Your task to perform on an android device: search for starred emails in the gmail app Image 0: 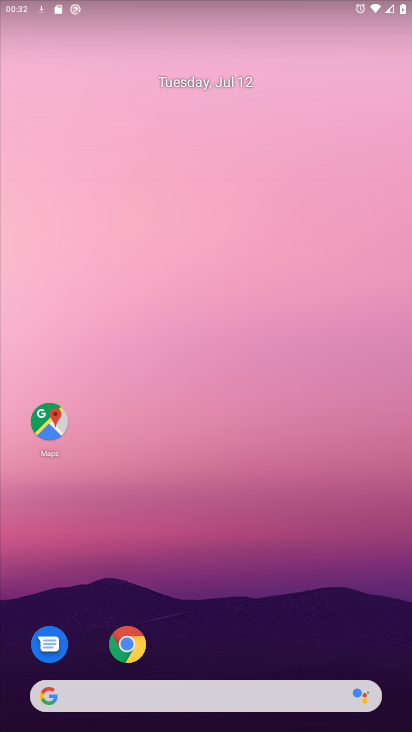
Step 0: drag from (203, 634) to (154, 223)
Your task to perform on an android device: search for starred emails in the gmail app Image 1: 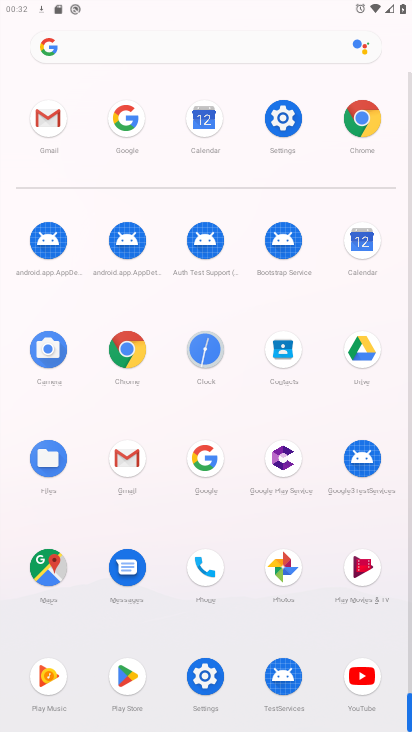
Step 1: click (58, 118)
Your task to perform on an android device: search for starred emails in the gmail app Image 2: 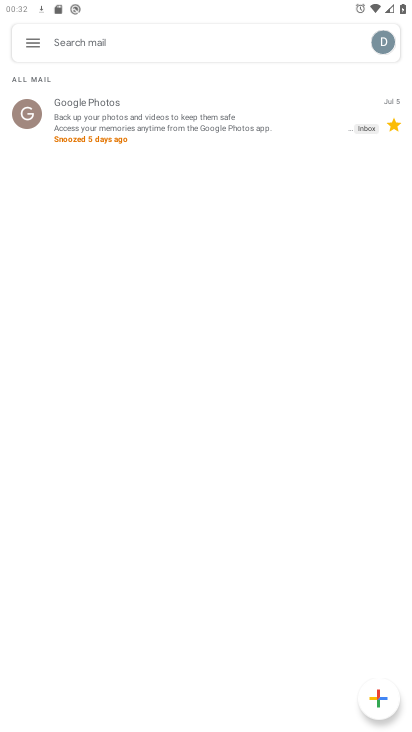
Step 2: click (33, 42)
Your task to perform on an android device: search for starred emails in the gmail app Image 3: 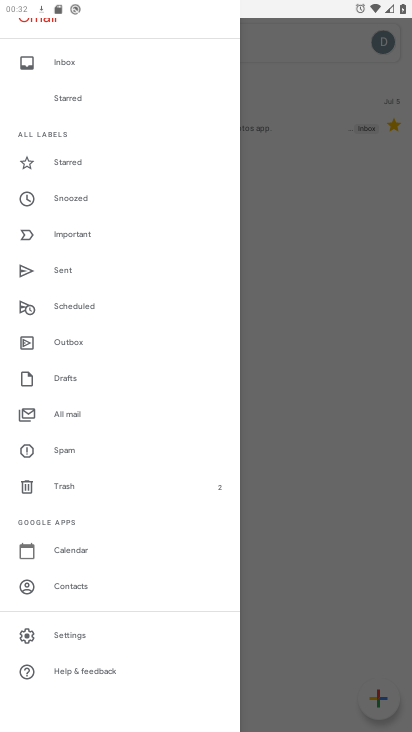
Step 3: click (70, 165)
Your task to perform on an android device: search for starred emails in the gmail app Image 4: 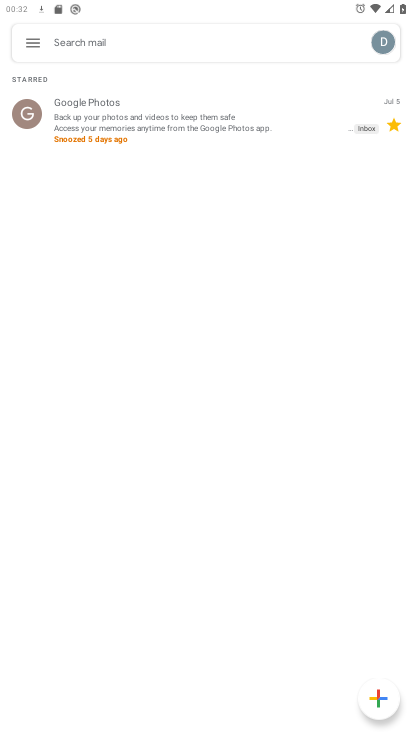
Step 4: task complete